Your task to perform on an android device: Open internet settings Image 0: 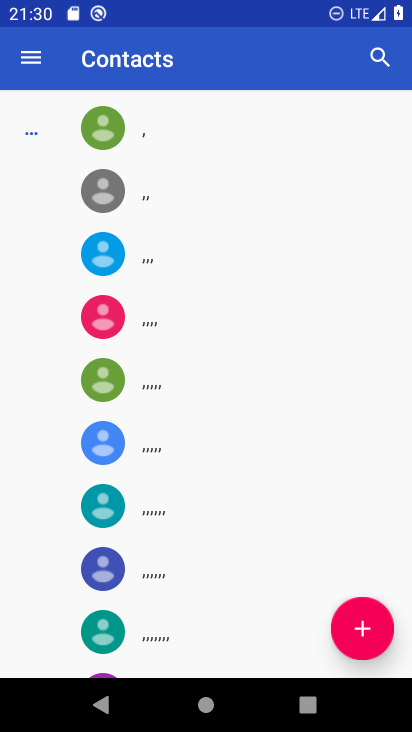
Step 0: press home button
Your task to perform on an android device: Open internet settings Image 1: 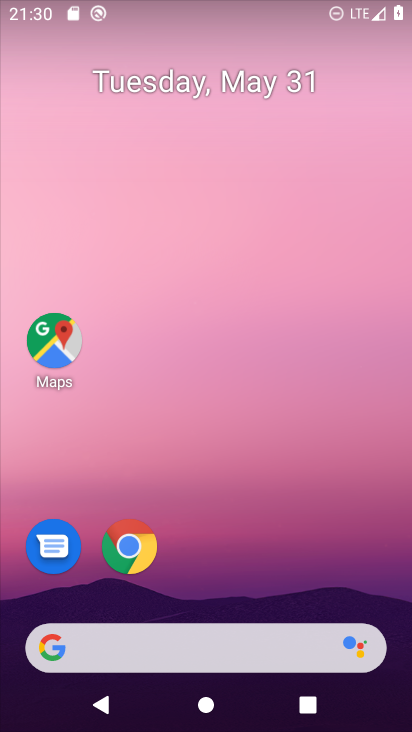
Step 1: drag from (392, 681) to (320, 105)
Your task to perform on an android device: Open internet settings Image 2: 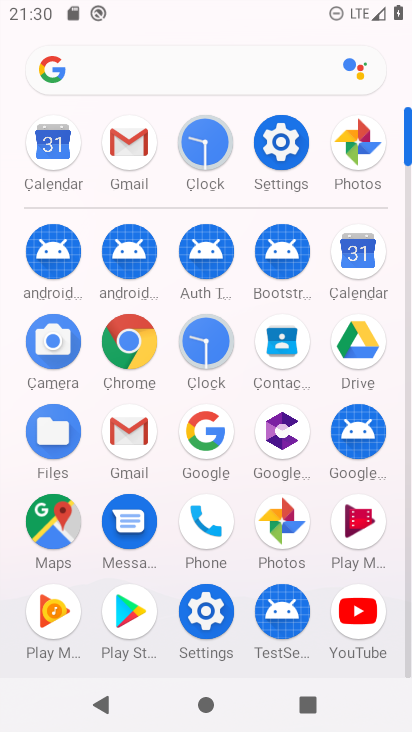
Step 2: click (280, 134)
Your task to perform on an android device: Open internet settings Image 3: 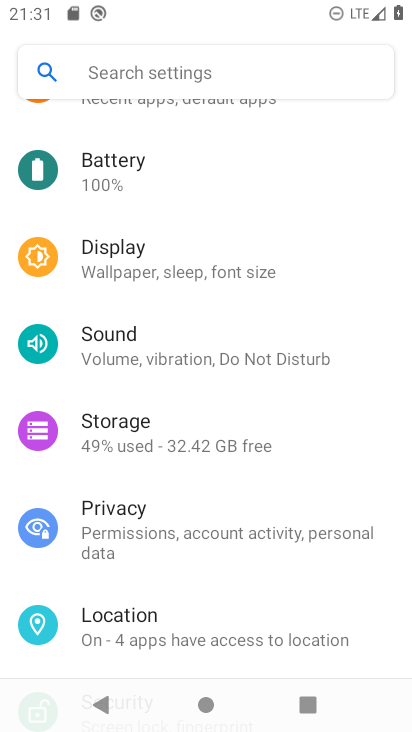
Step 3: drag from (204, 176) to (231, 623)
Your task to perform on an android device: Open internet settings Image 4: 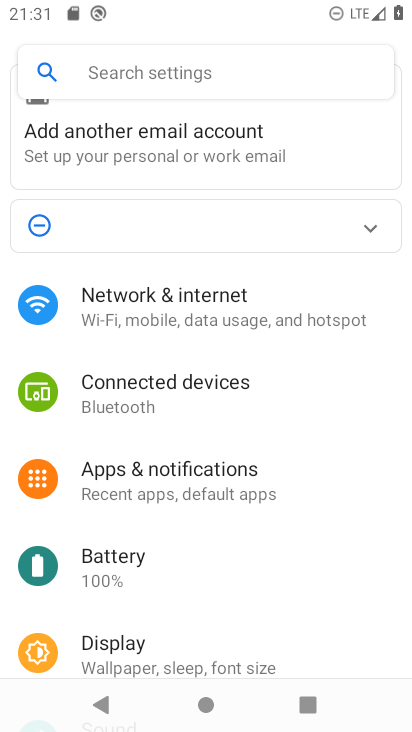
Step 4: click (302, 567)
Your task to perform on an android device: Open internet settings Image 5: 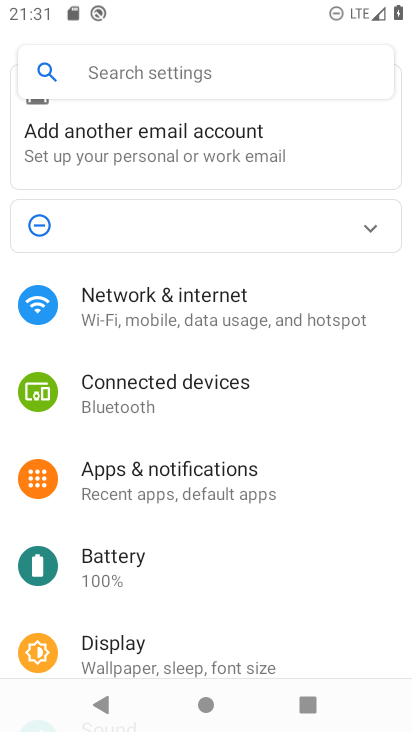
Step 5: click (133, 296)
Your task to perform on an android device: Open internet settings Image 6: 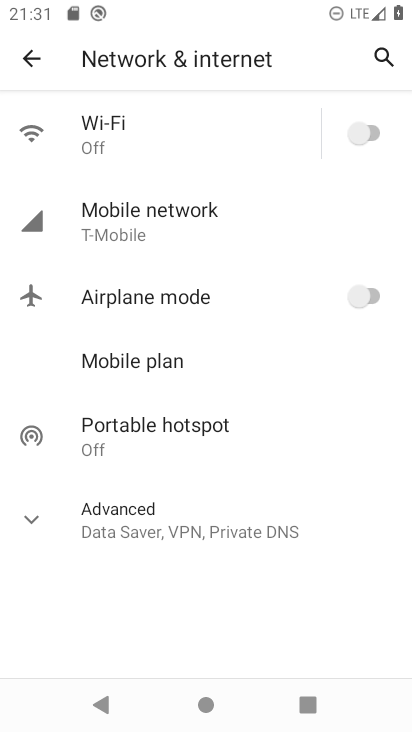
Step 6: click (39, 510)
Your task to perform on an android device: Open internet settings Image 7: 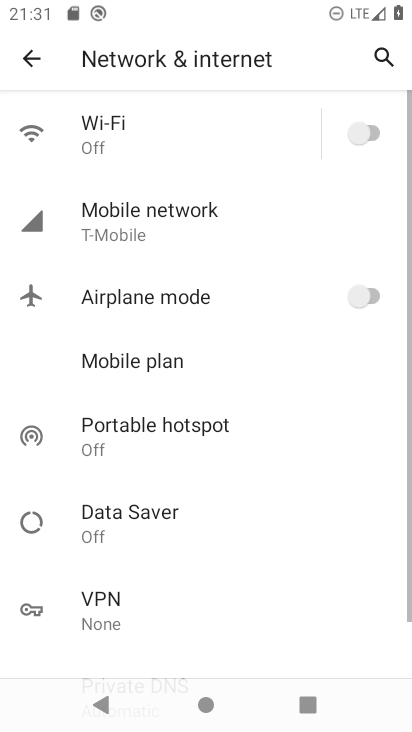
Step 7: task complete